Your task to perform on an android device: check out phone information Image 0: 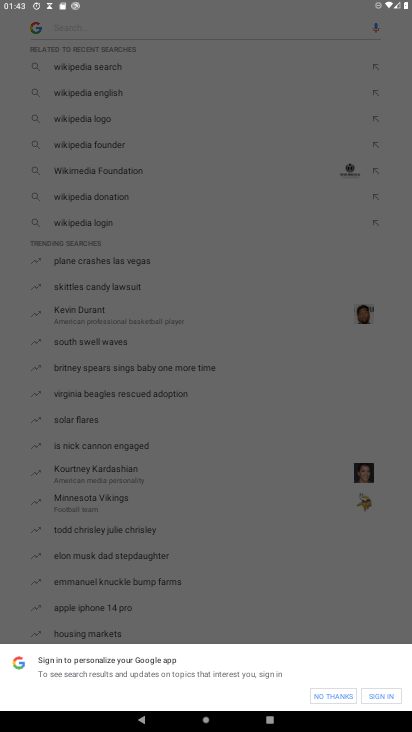
Step 0: press home button
Your task to perform on an android device: check out phone information Image 1: 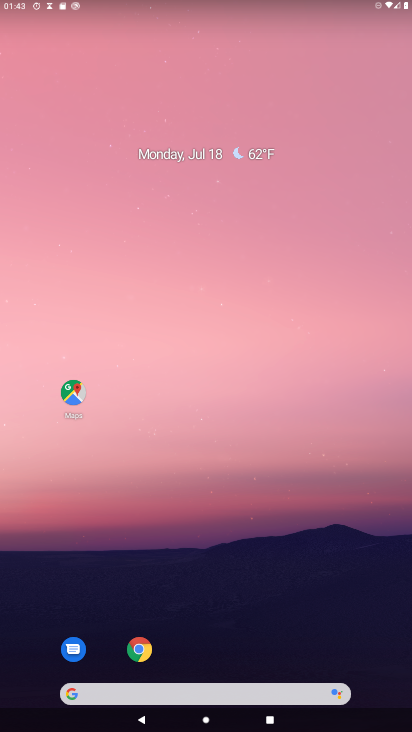
Step 1: drag from (44, 653) to (197, 313)
Your task to perform on an android device: check out phone information Image 2: 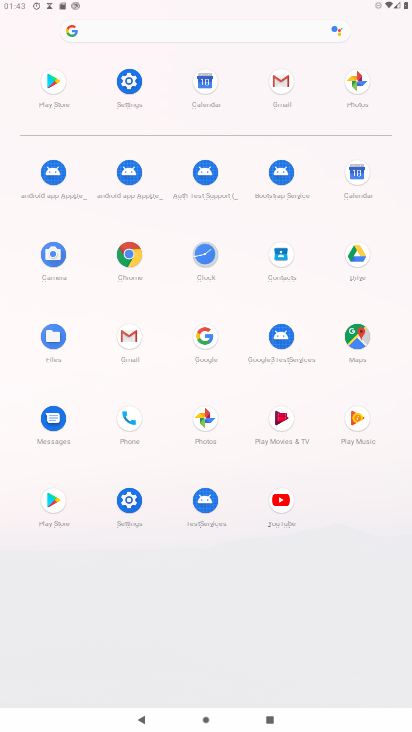
Step 2: click (286, 252)
Your task to perform on an android device: check out phone information Image 3: 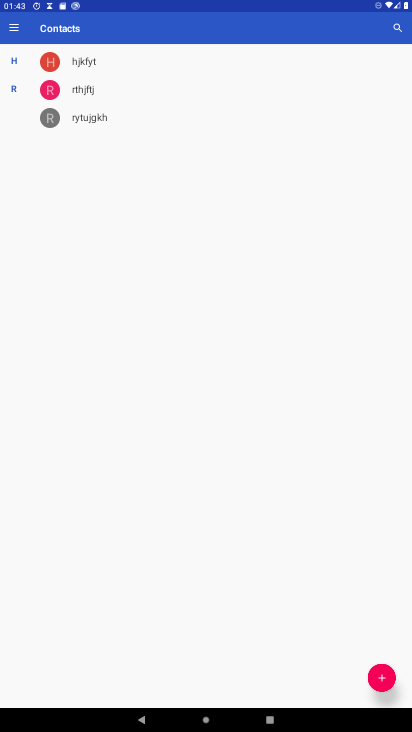
Step 3: task complete